Your task to perform on an android device: check out phone information Image 0: 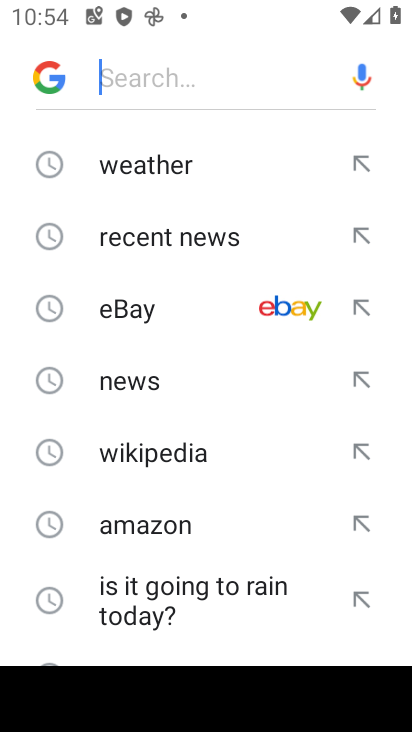
Step 0: press home button
Your task to perform on an android device: check out phone information Image 1: 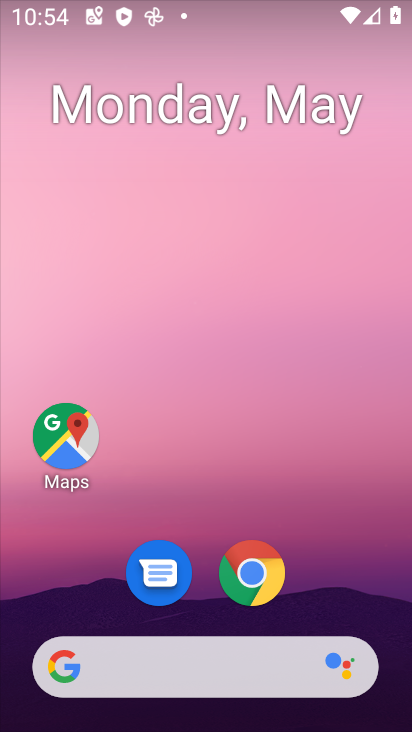
Step 1: drag from (354, 590) to (293, 56)
Your task to perform on an android device: check out phone information Image 2: 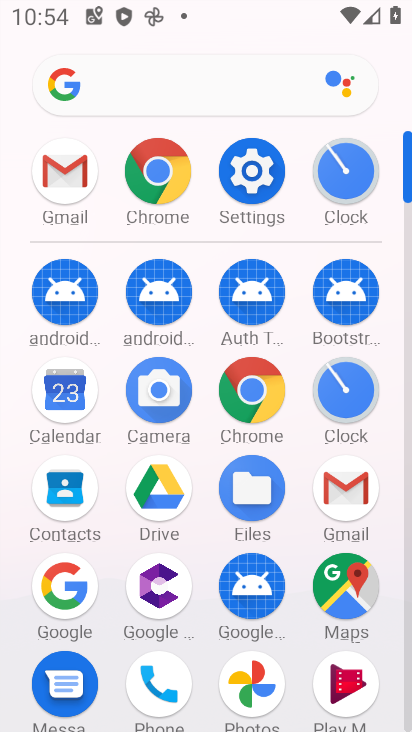
Step 2: click (274, 190)
Your task to perform on an android device: check out phone information Image 3: 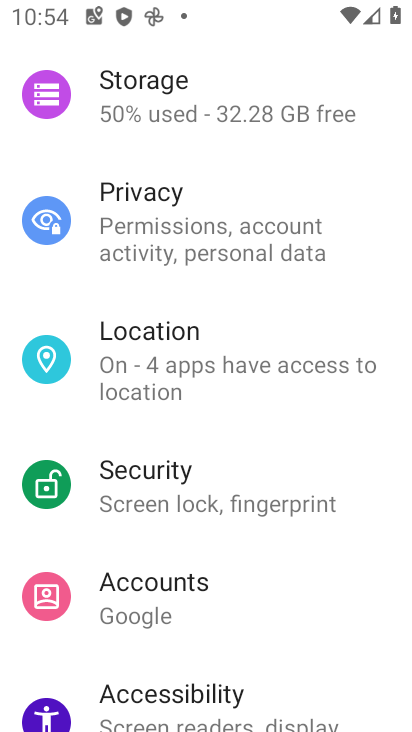
Step 3: task complete